Your task to perform on an android device: open a new tab in the chrome app Image 0: 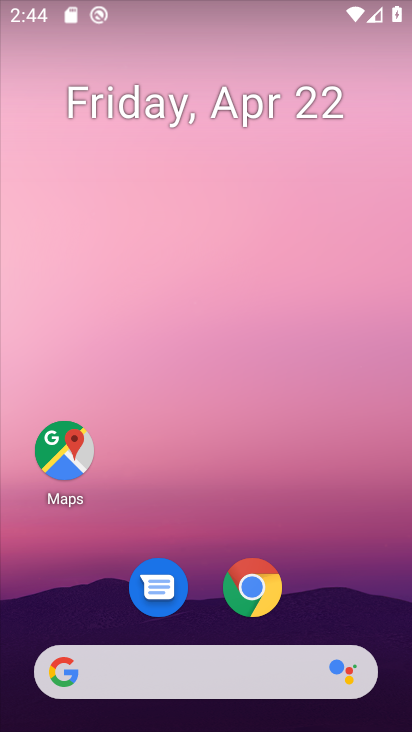
Step 0: click (256, 598)
Your task to perform on an android device: open a new tab in the chrome app Image 1: 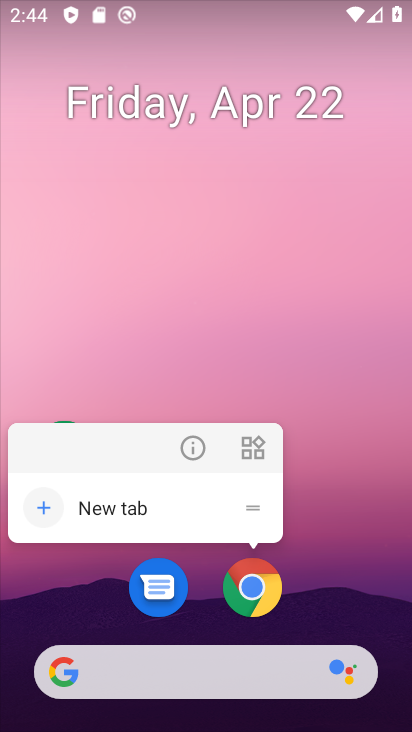
Step 1: click (131, 503)
Your task to perform on an android device: open a new tab in the chrome app Image 2: 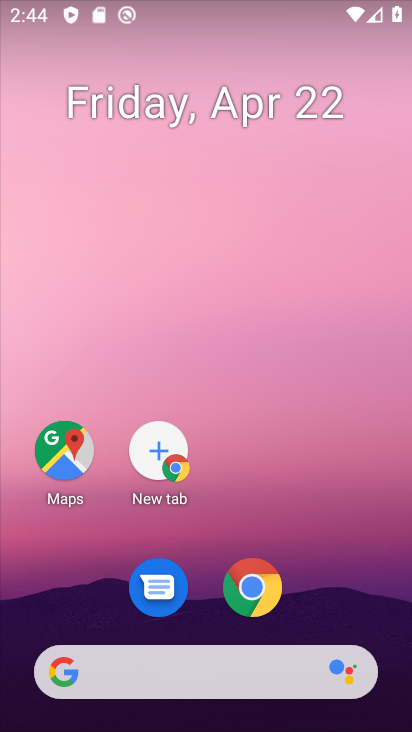
Step 2: click (158, 445)
Your task to perform on an android device: open a new tab in the chrome app Image 3: 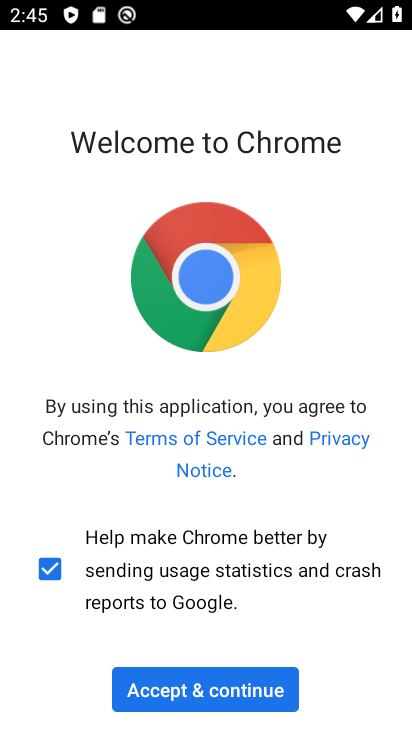
Step 3: press home button
Your task to perform on an android device: open a new tab in the chrome app Image 4: 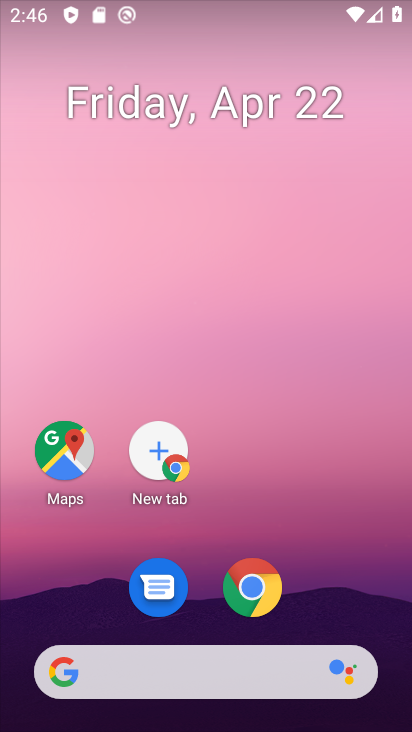
Step 4: click (254, 581)
Your task to perform on an android device: open a new tab in the chrome app Image 5: 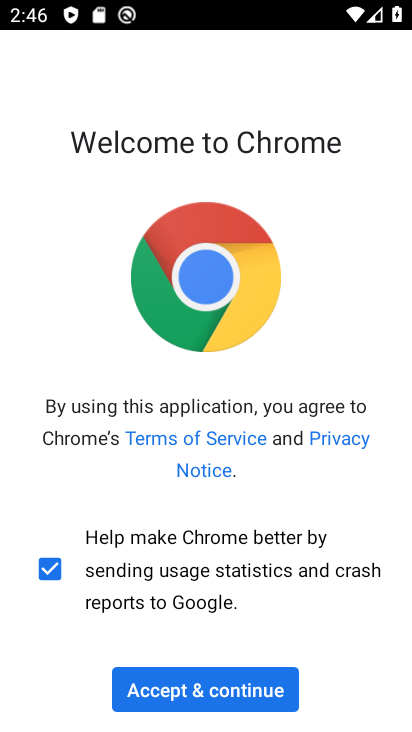
Step 5: click (190, 700)
Your task to perform on an android device: open a new tab in the chrome app Image 6: 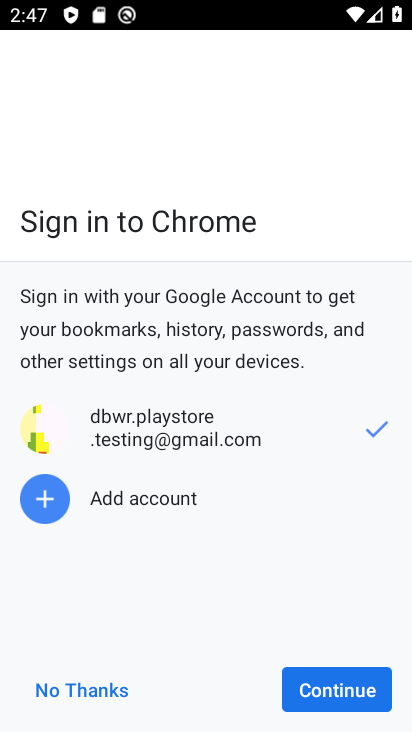
Step 6: click (331, 688)
Your task to perform on an android device: open a new tab in the chrome app Image 7: 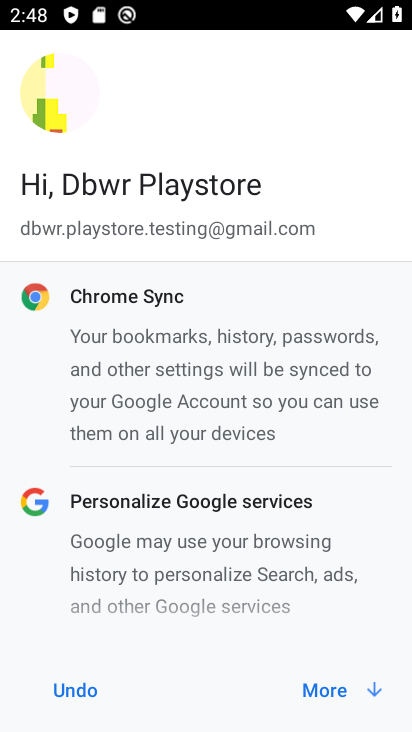
Step 7: click (330, 674)
Your task to perform on an android device: open a new tab in the chrome app Image 8: 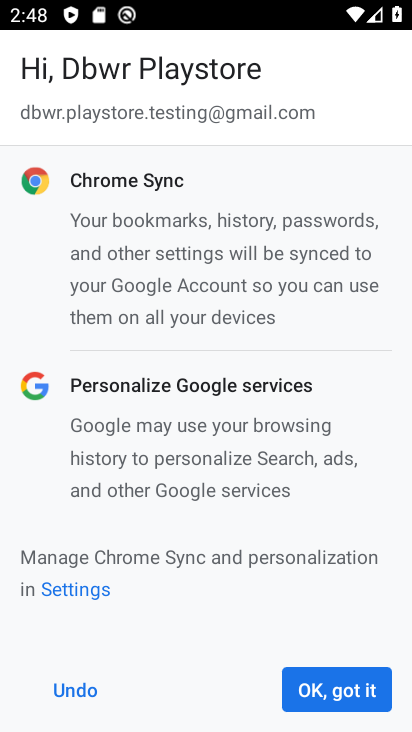
Step 8: click (330, 674)
Your task to perform on an android device: open a new tab in the chrome app Image 9: 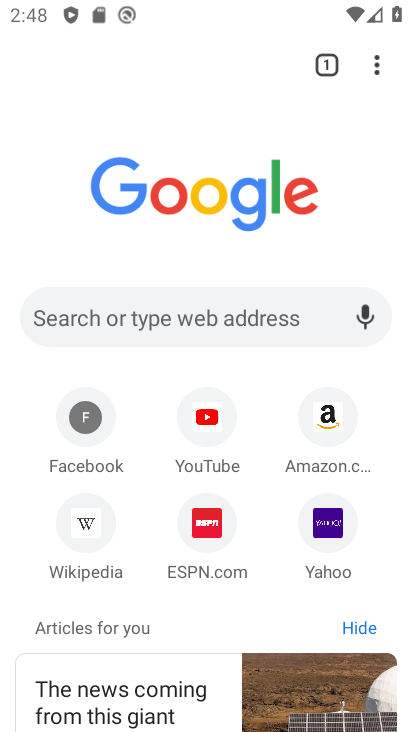
Step 9: task complete